Your task to perform on an android device: Search for Mexican restaurants on Maps Image 0: 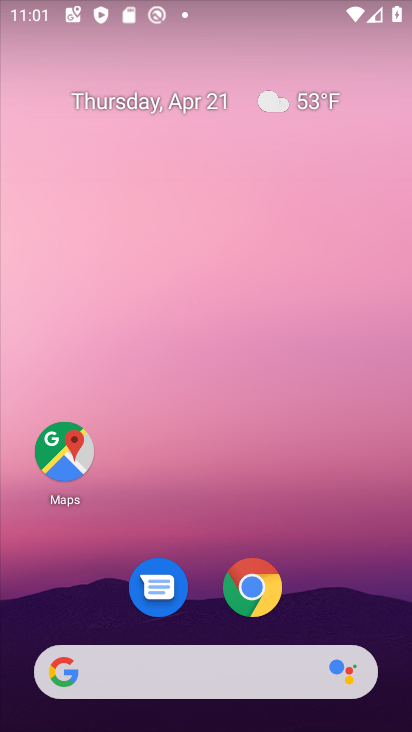
Step 0: click (83, 442)
Your task to perform on an android device: Search for Mexican restaurants on Maps Image 1: 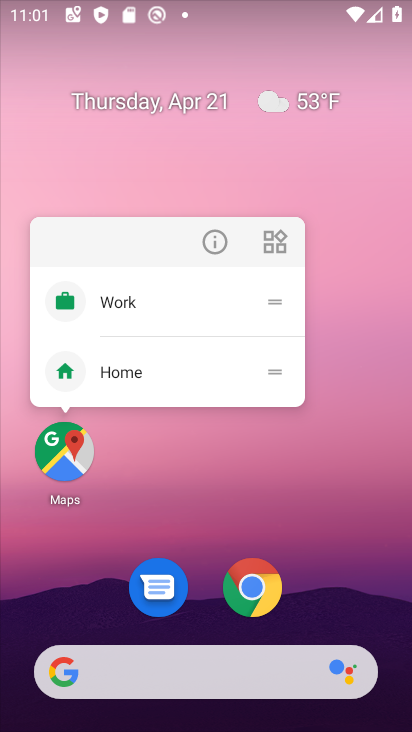
Step 1: click (64, 457)
Your task to perform on an android device: Search for Mexican restaurants on Maps Image 2: 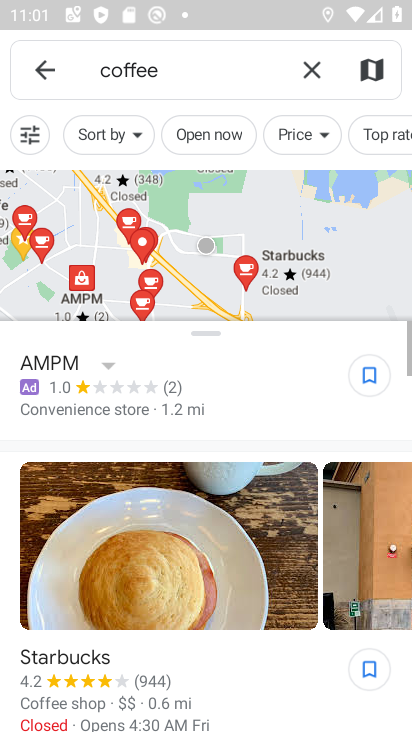
Step 2: click (303, 70)
Your task to perform on an android device: Search for Mexican restaurants on Maps Image 3: 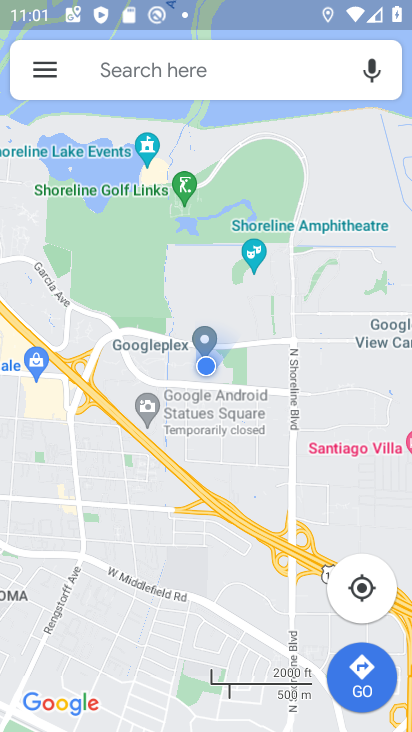
Step 3: click (148, 77)
Your task to perform on an android device: Search for Mexican restaurants on Maps Image 4: 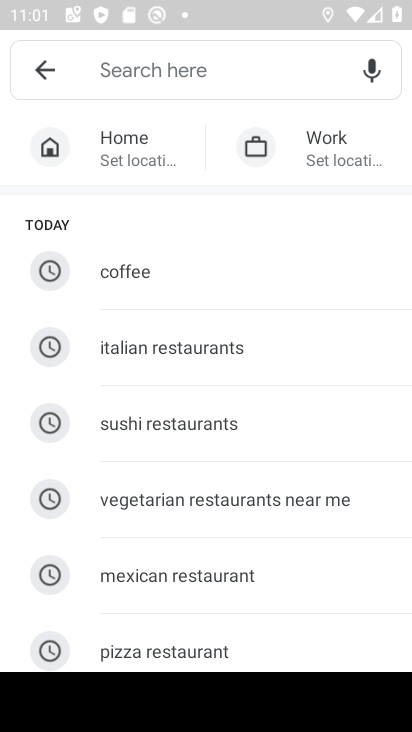
Step 4: click (156, 564)
Your task to perform on an android device: Search for Mexican restaurants on Maps Image 5: 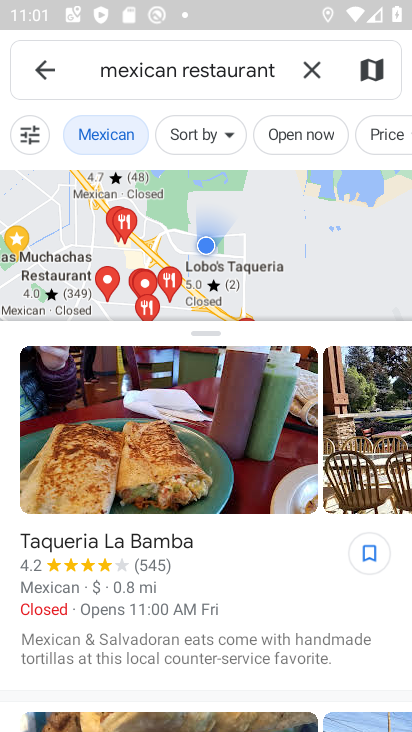
Step 5: task complete